Your task to perform on an android device: change timer sound Image 0: 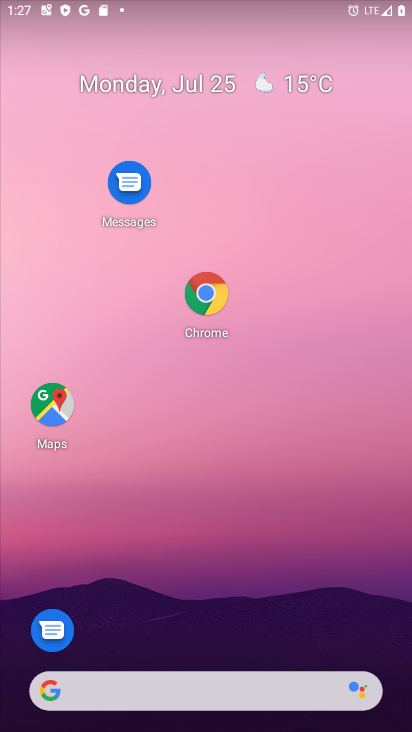
Step 0: press home button
Your task to perform on an android device: change timer sound Image 1: 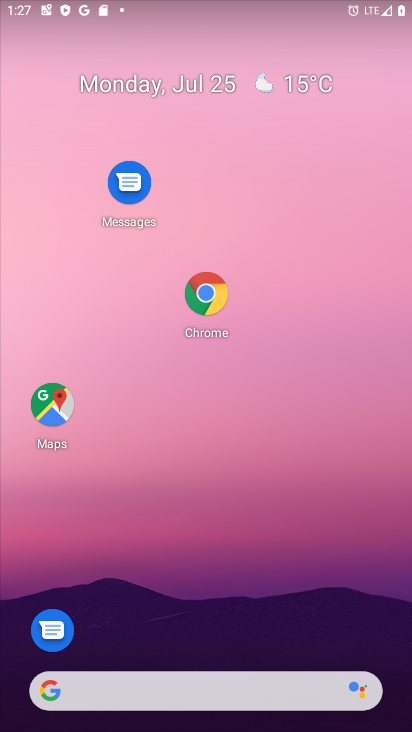
Step 1: drag from (222, 599) to (348, 19)
Your task to perform on an android device: change timer sound Image 2: 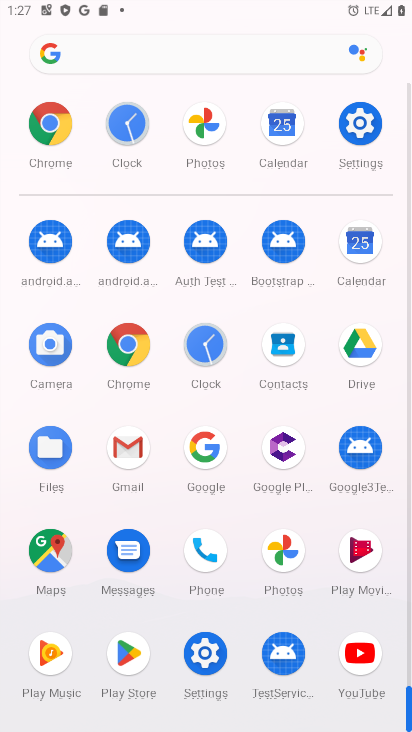
Step 2: click (370, 101)
Your task to perform on an android device: change timer sound Image 3: 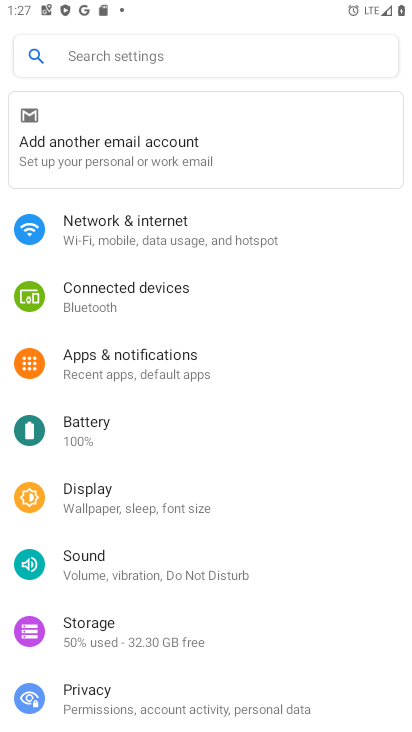
Step 3: press home button
Your task to perform on an android device: change timer sound Image 4: 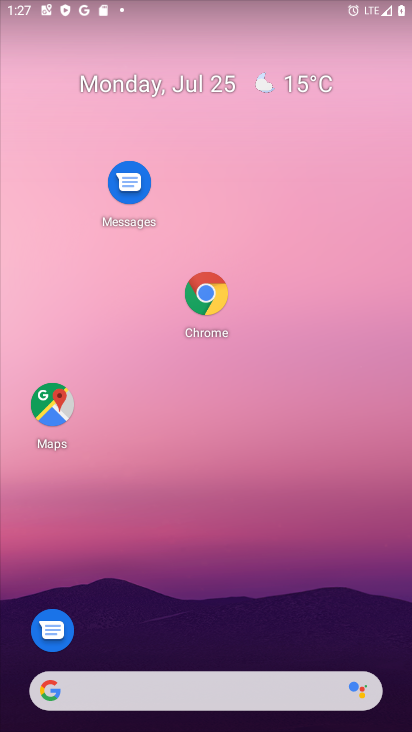
Step 4: drag from (346, 636) to (323, 4)
Your task to perform on an android device: change timer sound Image 5: 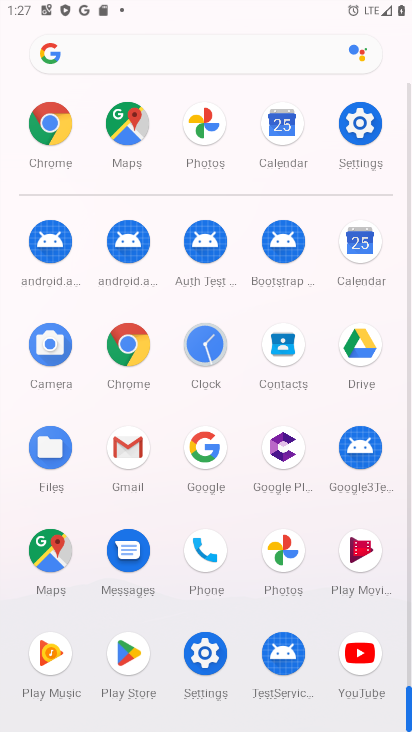
Step 5: click (197, 363)
Your task to perform on an android device: change timer sound Image 6: 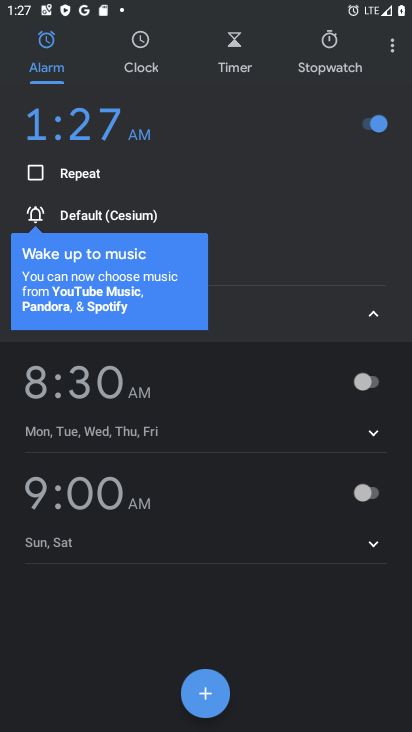
Step 6: click (395, 38)
Your task to perform on an android device: change timer sound Image 7: 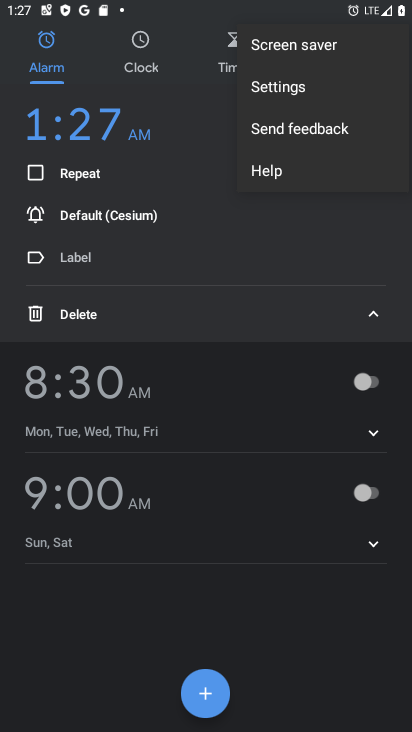
Step 7: click (279, 85)
Your task to perform on an android device: change timer sound Image 8: 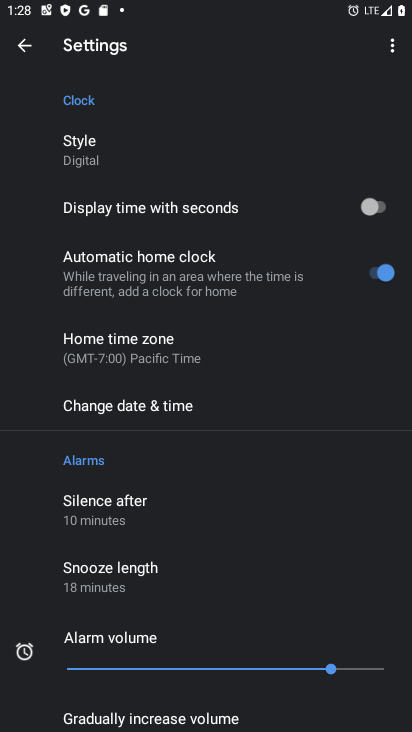
Step 8: drag from (154, 566) to (162, 320)
Your task to perform on an android device: change timer sound Image 9: 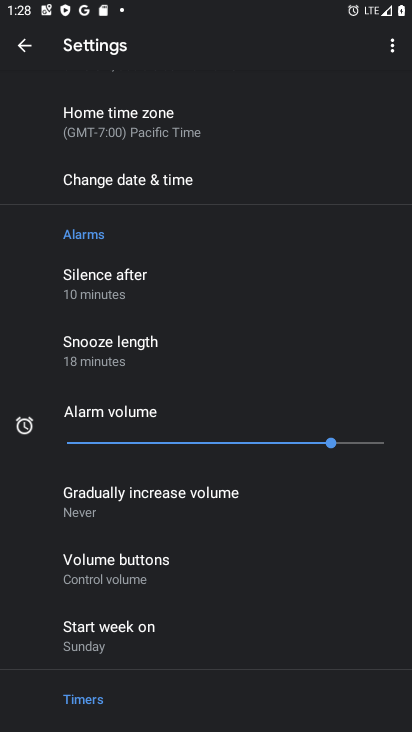
Step 9: drag from (164, 600) to (156, 336)
Your task to perform on an android device: change timer sound Image 10: 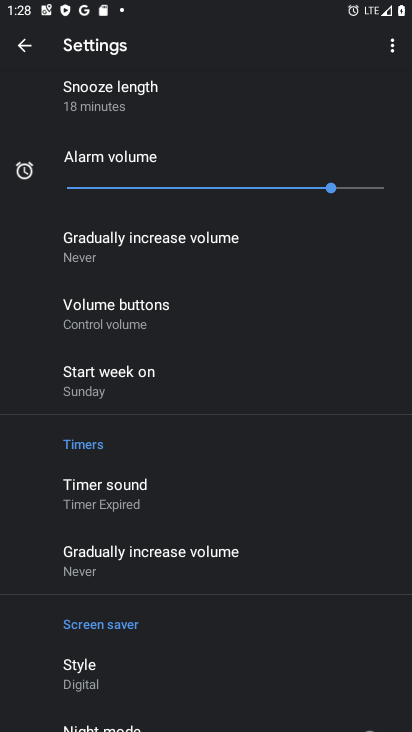
Step 10: click (154, 466)
Your task to perform on an android device: change timer sound Image 11: 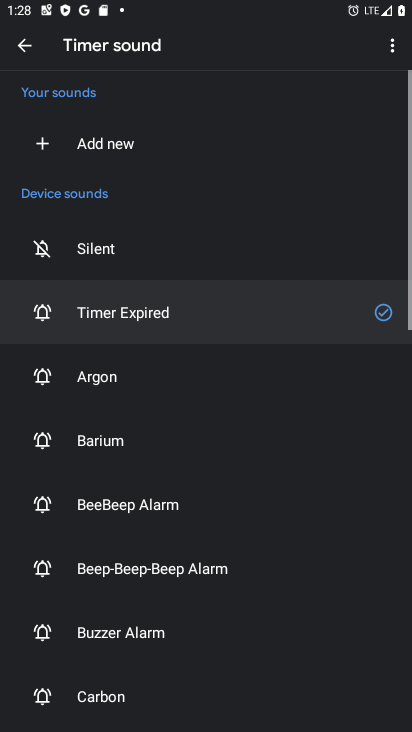
Step 11: click (142, 429)
Your task to perform on an android device: change timer sound Image 12: 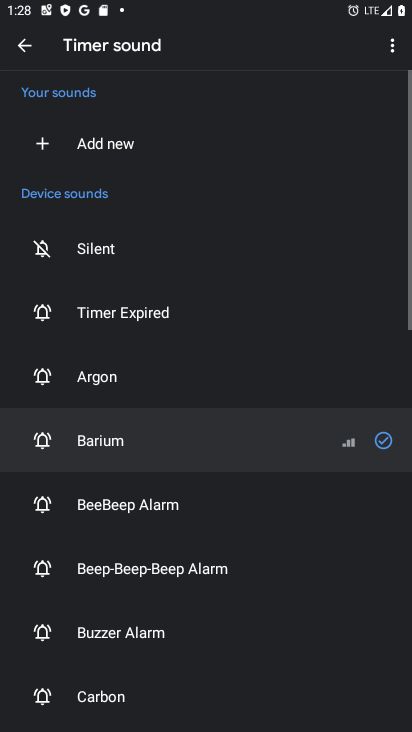
Step 12: task complete